Your task to perform on an android device: Set the phone to "Do not disturb". Image 0: 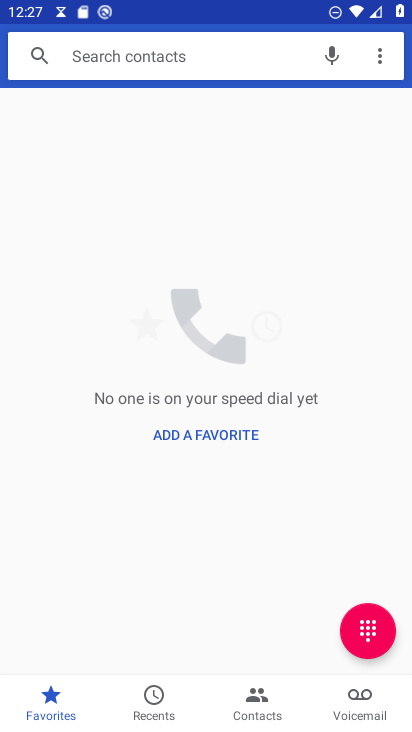
Step 0: press home button
Your task to perform on an android device: Set the phone to "Do not disturb". Image 1: 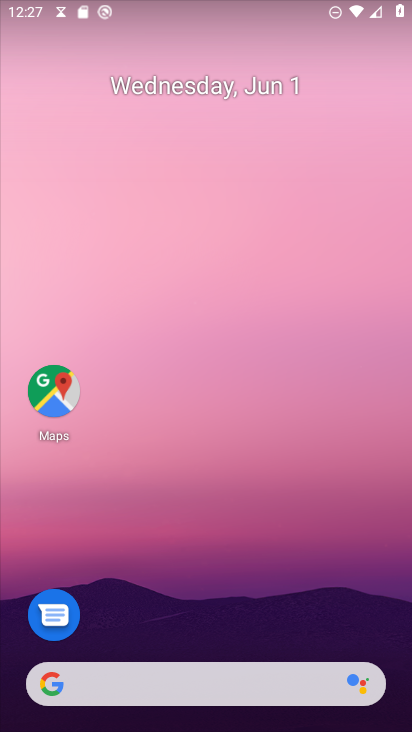
Step 1: drag from (217, 633) to (270, 7)
Your task to perform on an android device: Set the phone to "Do not disturb". Image 2: 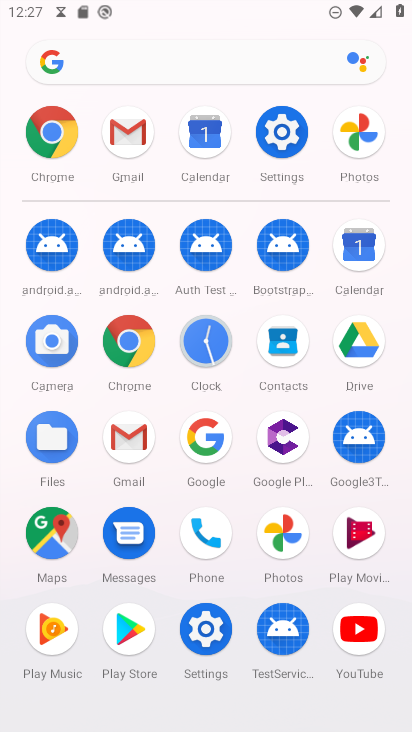
Step 2: click (292, 145)
Your task to perform on an android device: Set the phone to "Do not disturb". Image 3: 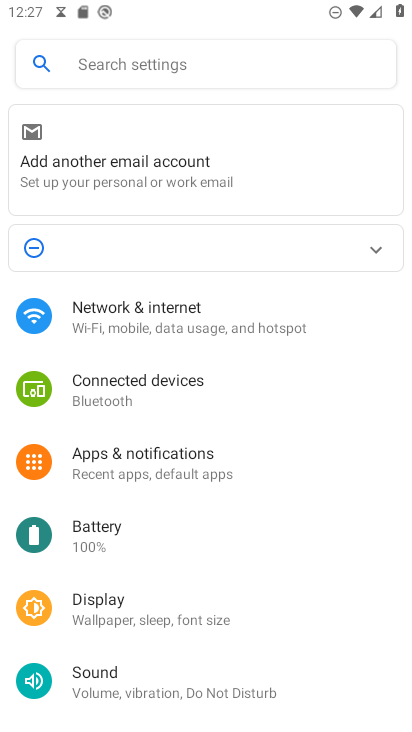
Step 3: click (242, 690)
Your task to perform on an android device: Set the phone to "Do not disturb". Image 4: 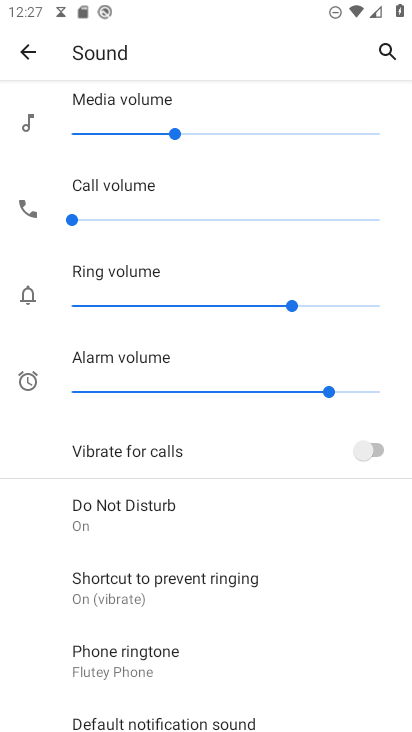
Step 4: click (196, 515)
Your task to perform on an android device: Set the phone to "Do not disturb". Image 5: 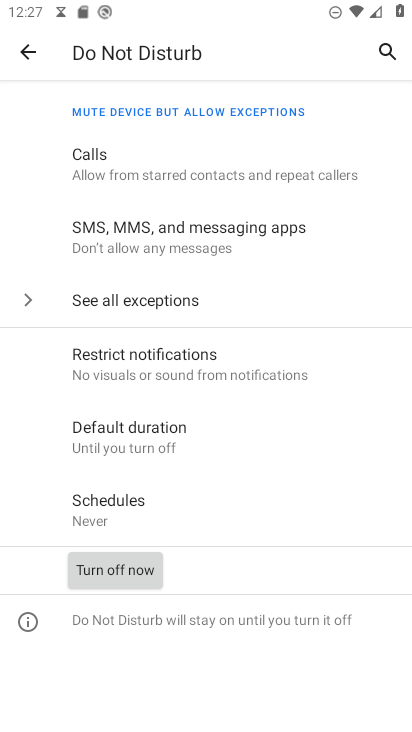
Step 5: task complete